Your task to perform on an android device: Go to CNN.com Image 0: 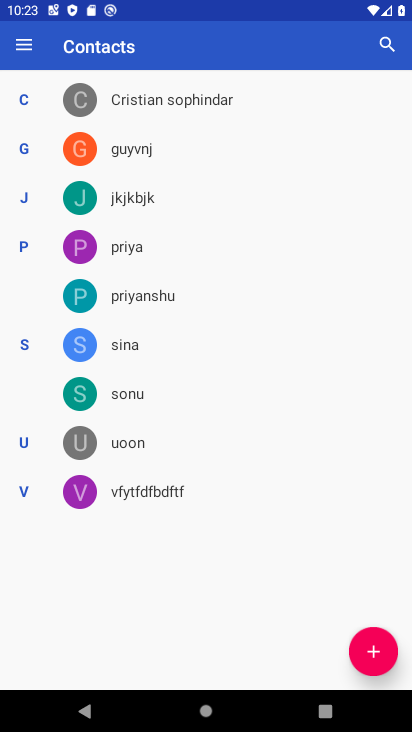
Step 0: press home button
Your task to perform on an android device: Go to CNN.com Image 1: 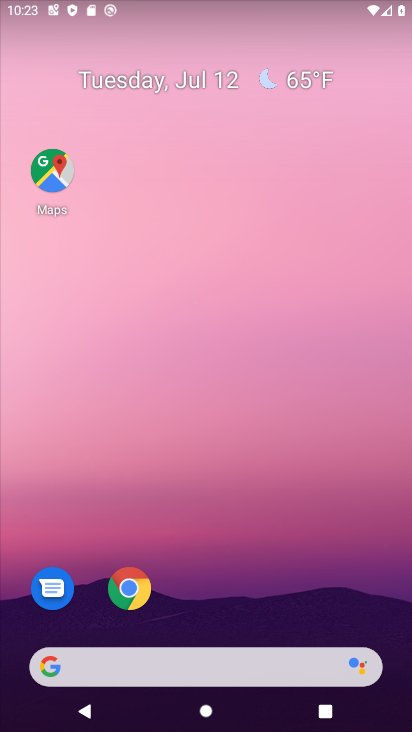
Step 1: click (145, 664)
Your task to perform on an android device: Go to CNN.com Image 2: 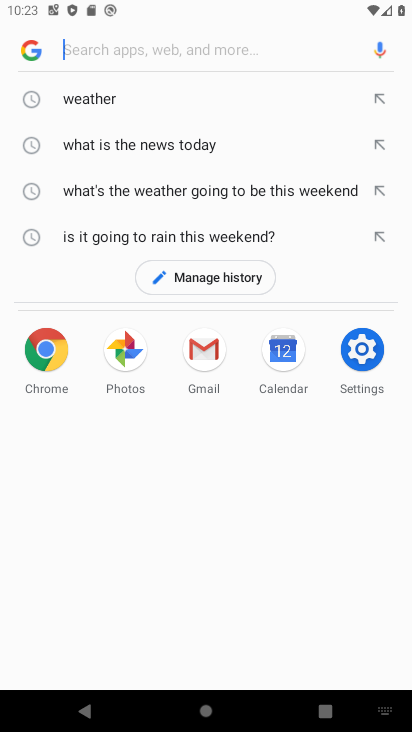
Step 2: type "CNN.com"
Your task to perform on an android device: Go to CNN.com Image 3: 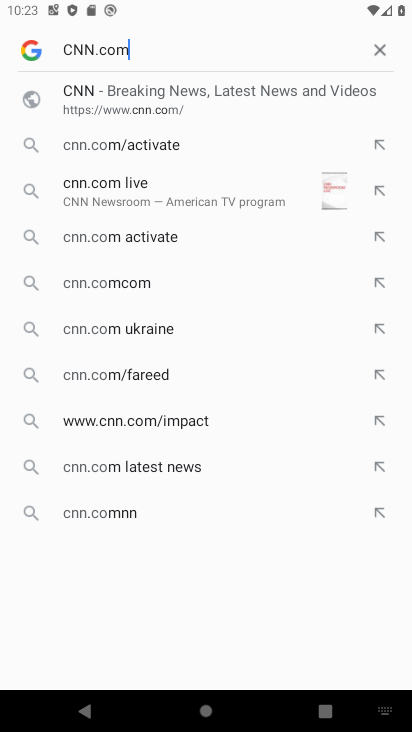
Step 3: type ""
Your task to perform on an android device: Go to CNN.com Image 4: 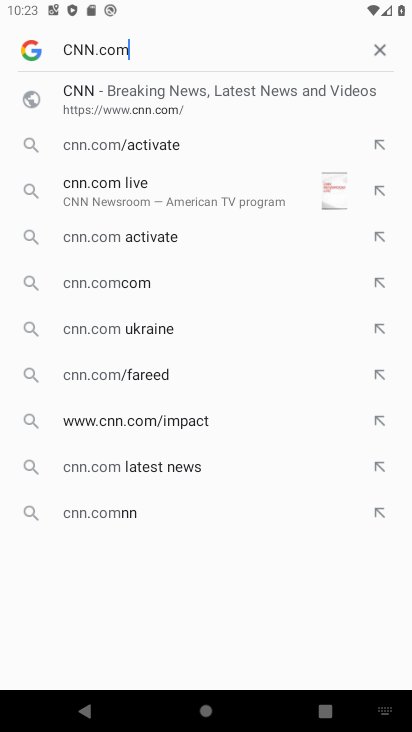
Step 4: click (112, 98)
Your task to perform on an android device: Go to CNN.com Image 5: 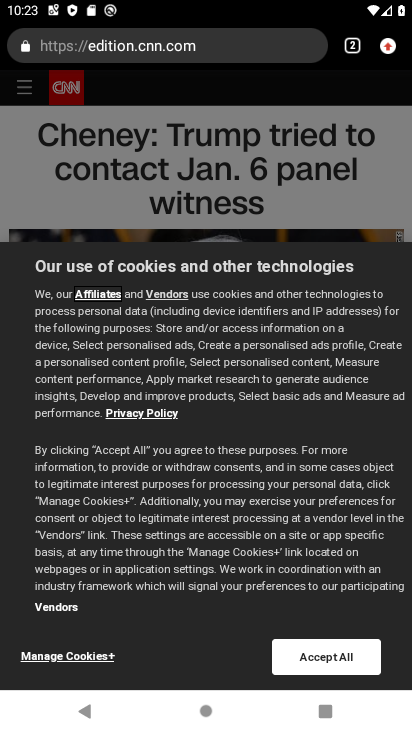
Step 5: task complete